Your task to perform on an android device: Go to Yahoo.com Image 0: 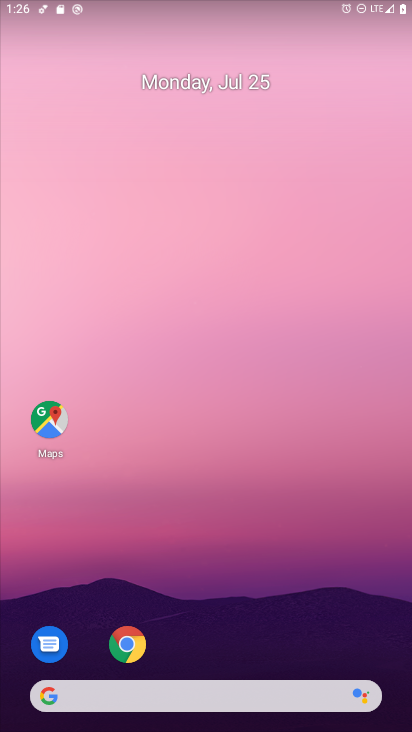
Step 0: click (117, 652)
Your task to perform on an android device: Go to Yahoo.com Image 1: 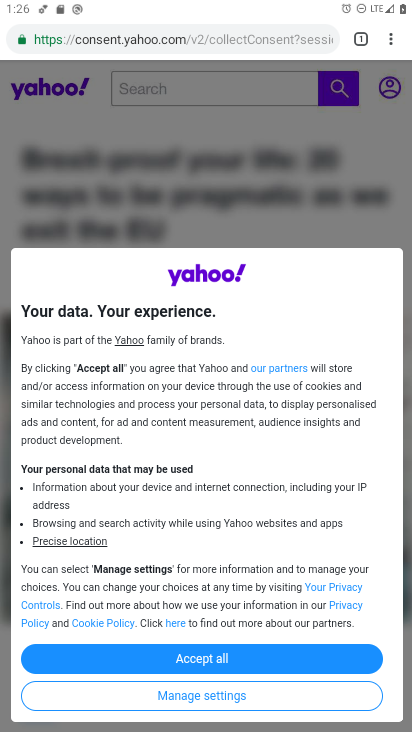
Step 1: task complete